Your task to perform on an android device: Search for Mexican restaurants on Maps Image 0: 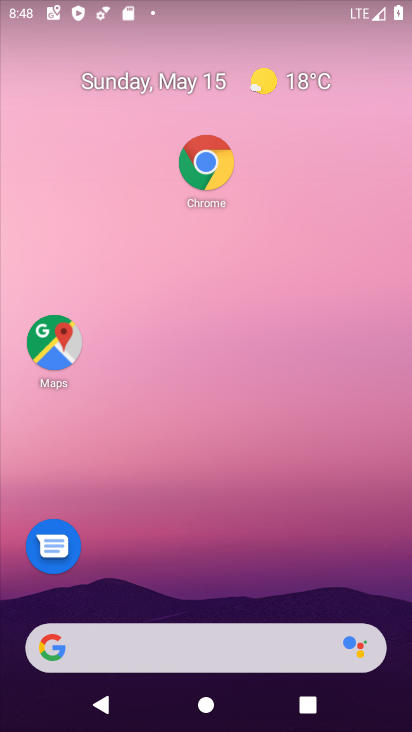
Step 0: drag from (289, 582) to (315, 310)
Your task to perform on an android device: Search for Mexican restaurants on Maps Image 1: 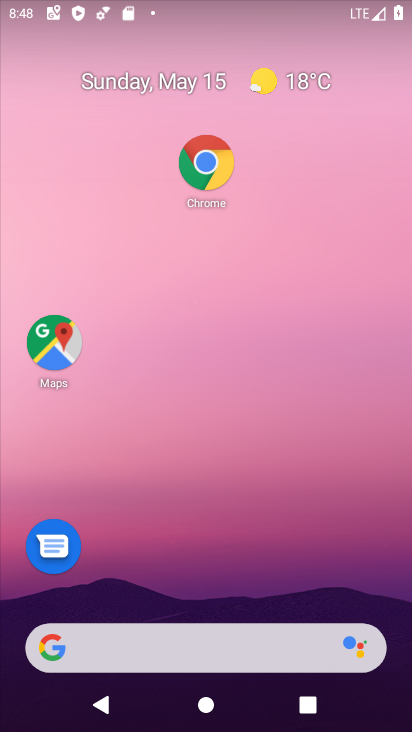
Step 1: drag from (256, 583) to (288, 301)
Your task to perform on an android device: Search for Mexican restaurants on Maps Image 2: 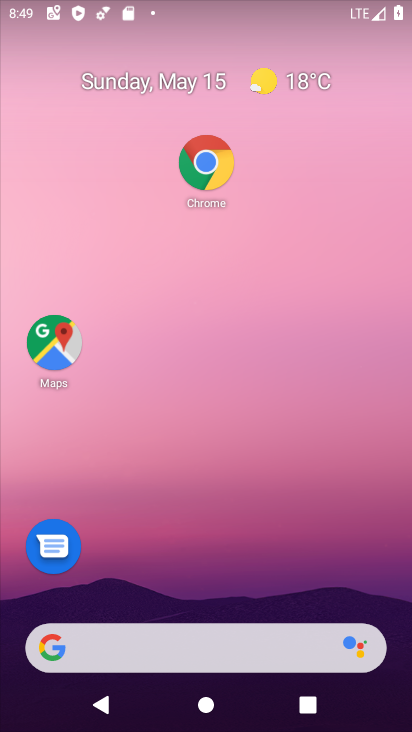
Step 2: click (185, 158)
Your task to perform on an android device: Search for Mexican restaurants on Maps Image 3: 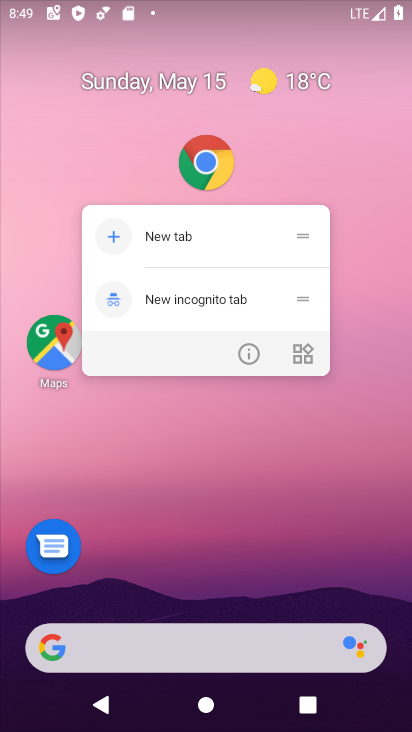
Step 3: press home button
Your task to perform on an android device: Search for Mexican restaurants on Maps Image 4: 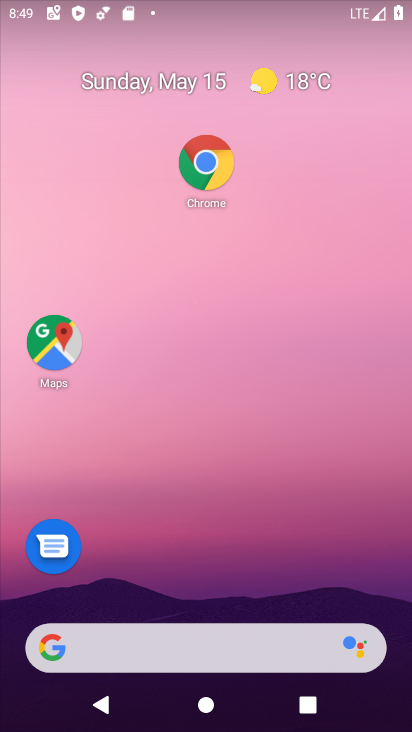
Step 4: click (48, 349)
Your task to perform on an android device: Search for Mexican restaurants on Maps Image 5: 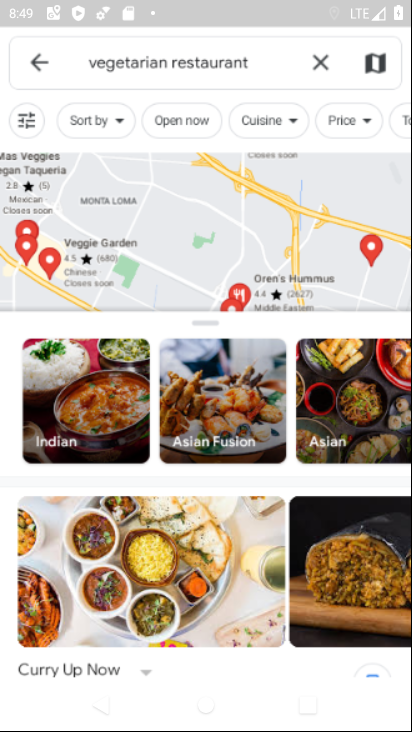
Step 5: click (311, 63)
Your task to perform on an android device: Search for Mexican restaurants on Maps Image 6: 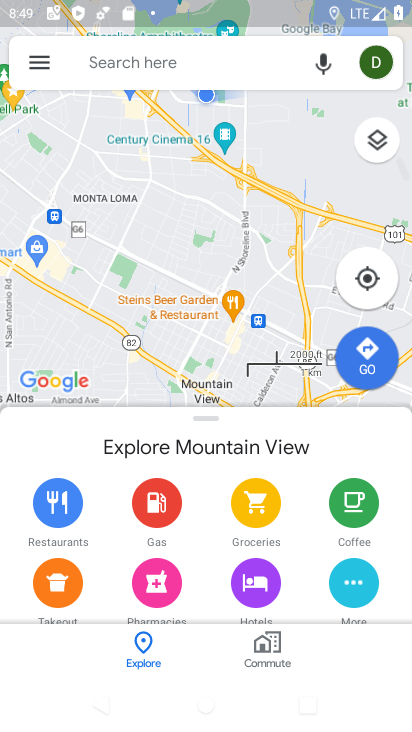
Step 6: click (194, 51)
Your task to perform on an android device: Search for Mexican restaurants on Maps Image 7: 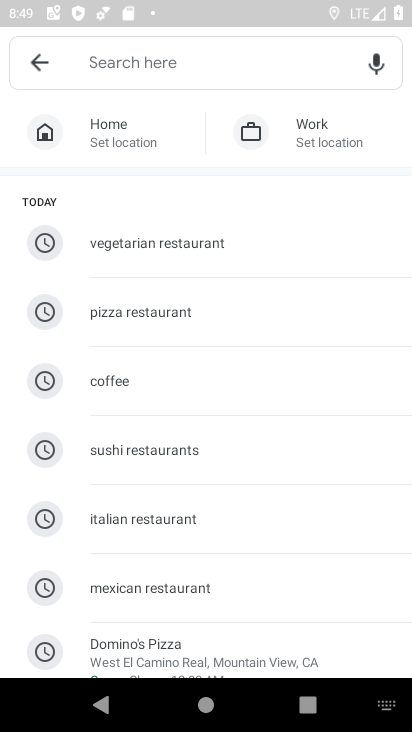
Step 7: click (201, 579)
Your task to perform on an android device: Search for Mexican restaurants on Maps Image 8: 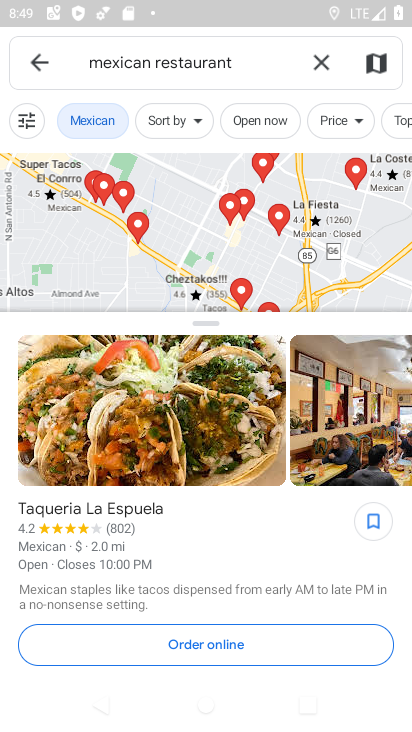
Step 8: task complete